Your task to perform on an android device: Show me the alarms in the clock app Image 0: 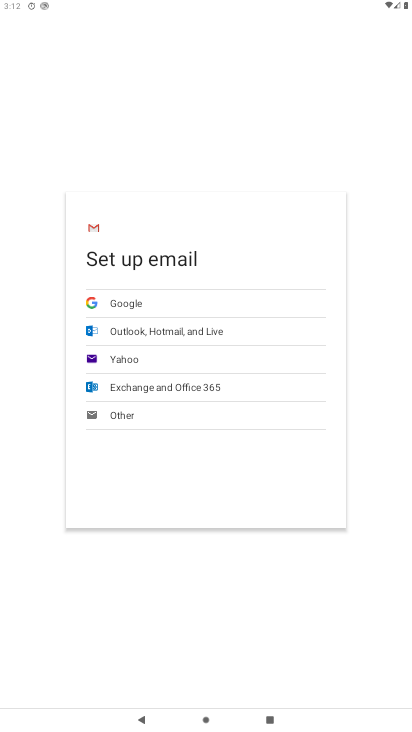
Step 0: press home button
Your task to perform on an android device: Show me the alarms in the clock app Image 1: 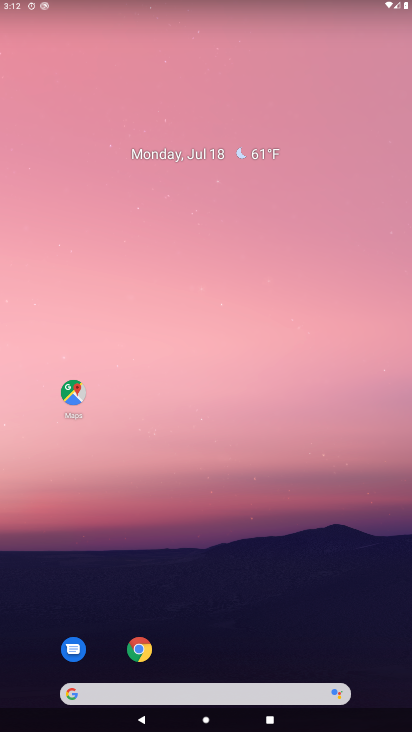
Step 1: drag from (32, 700) to (165, 262)
Your task to perform on an android device: Show me the alarms in the clock app Image 2: 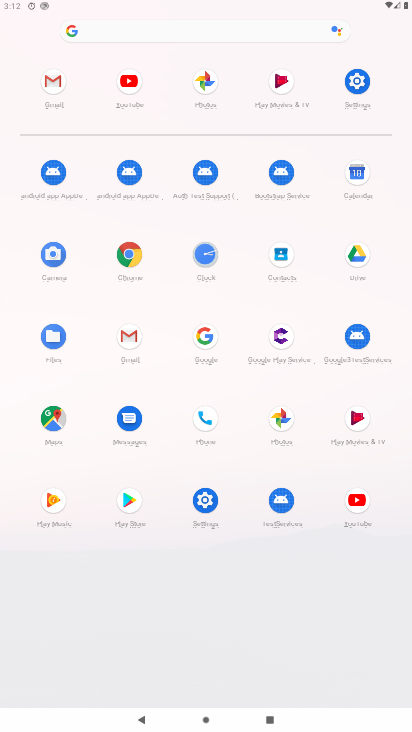
Step 2: click (214, 254)
Your task to perform on an android device: Show me the alarms in the clock app Image 3: 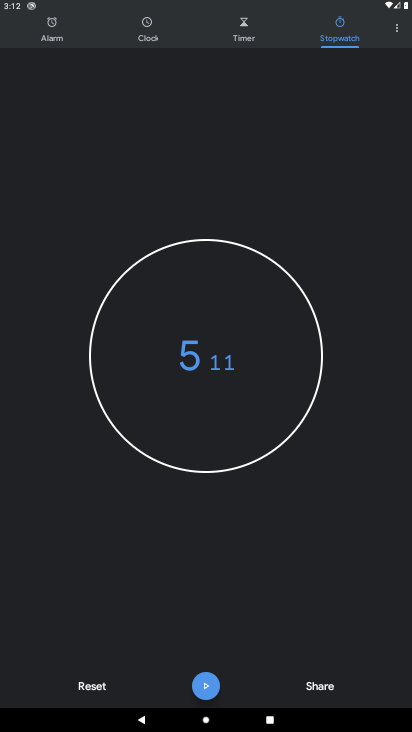
Step 3: click (54, 39)
Your task to perform on an android device: Show me the alarms in the clock app Image 4: 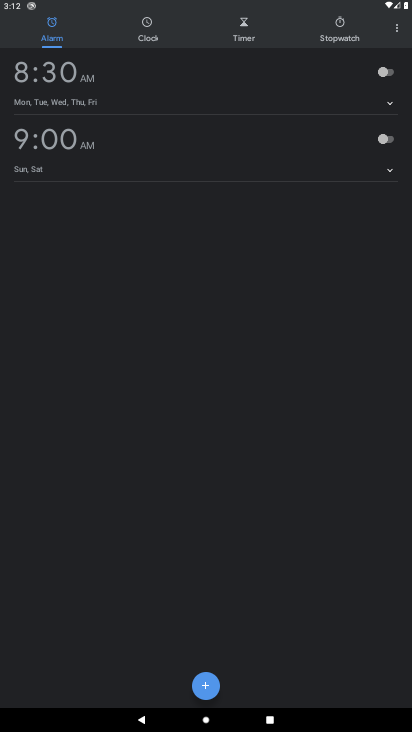
Step 4: task complete